Your task to perform on an android device: What's the weather going to be this weekend? Image 0: 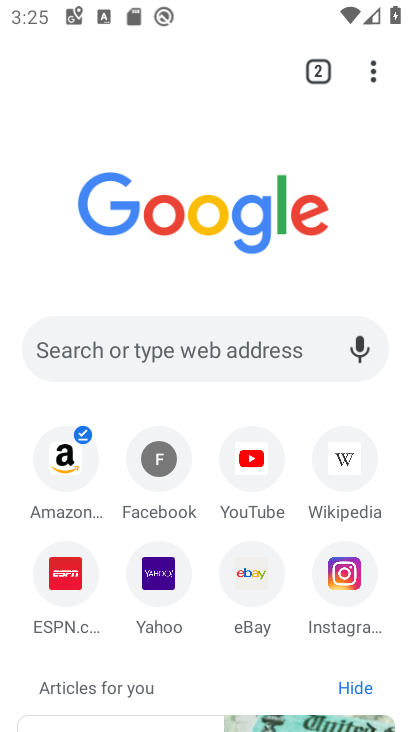
Step 0: press home button
Your task to perform on an android device: What's the weather going to be this weekend? Image 1: 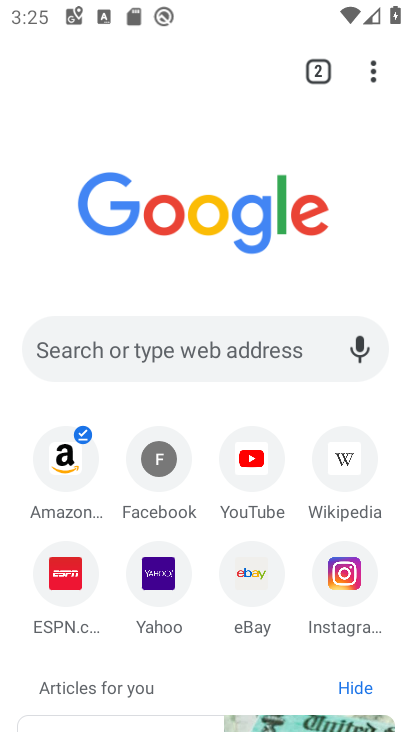
Step 1: press home button
Your task to perform on an android device: What's the weather going to be this weekend? Image 2: 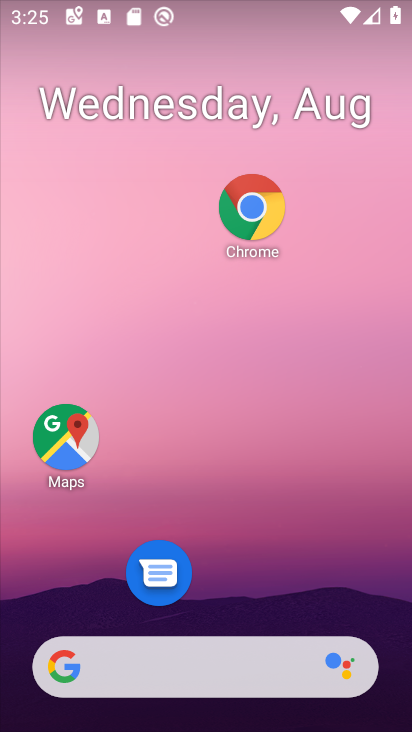
Step 2: click (214, 669)
Your task to perform on an android device: What's the weather going to be this weekend? Image 3: 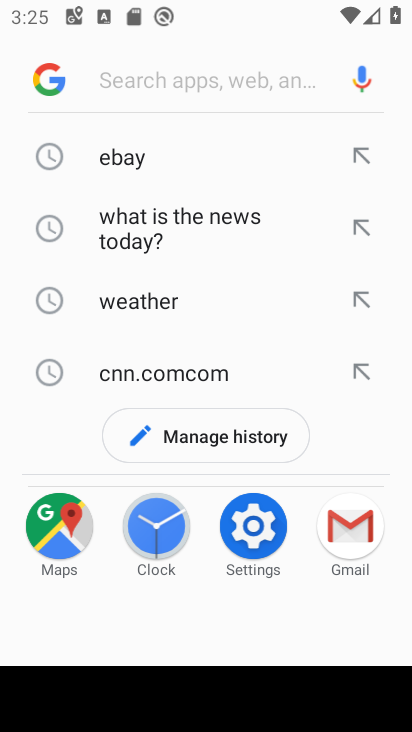
Step 3: click (148, 299)
Your task to perform on an android device: What's the weather going to be this weekend? Image 4: 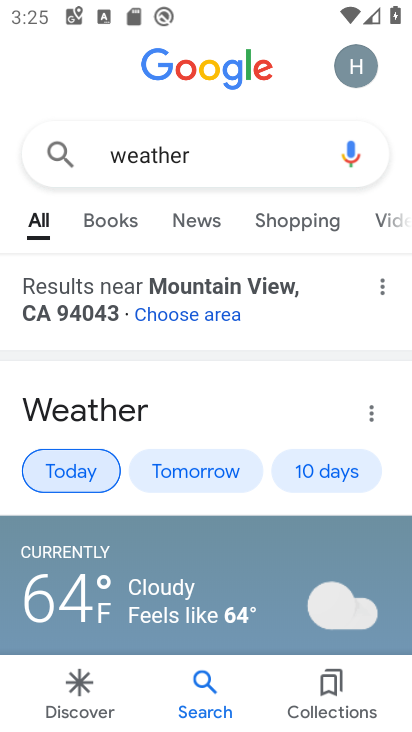
Step 4: click (347, 477)
Your task to perform on an android device: What's the weather going to be this weekend? Image 5: 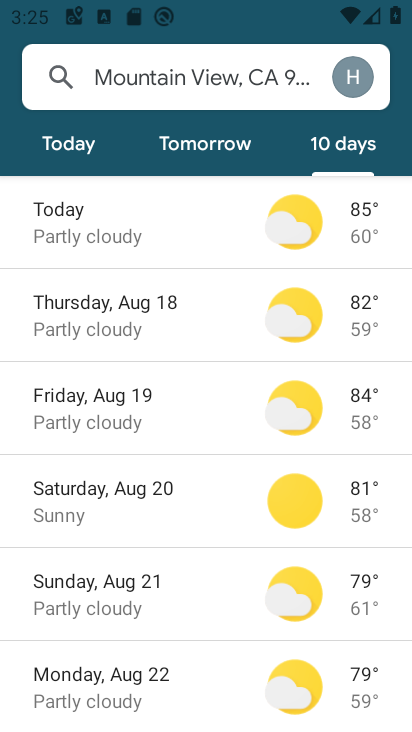
Step 5: click (198, 495)
Your task to perform on an android device: What's the weather going to be this weekend? Image 6: 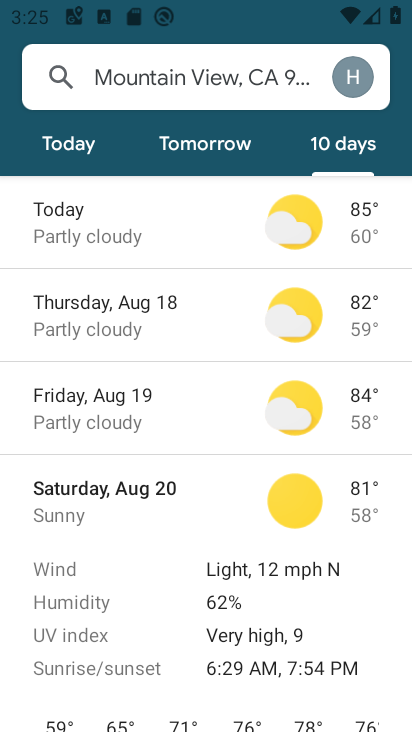
Step 6: task complete